Your task to perform on an android device: See recent photos Image 0: 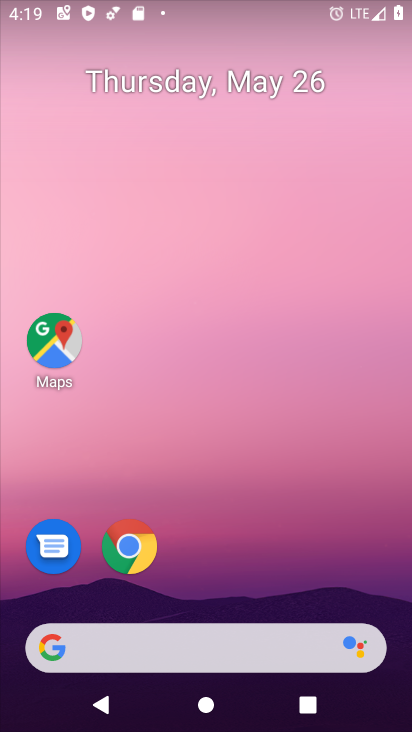
Step 0: click (362, 46)
Your task to perform on an android device: See recent photos Image 1: 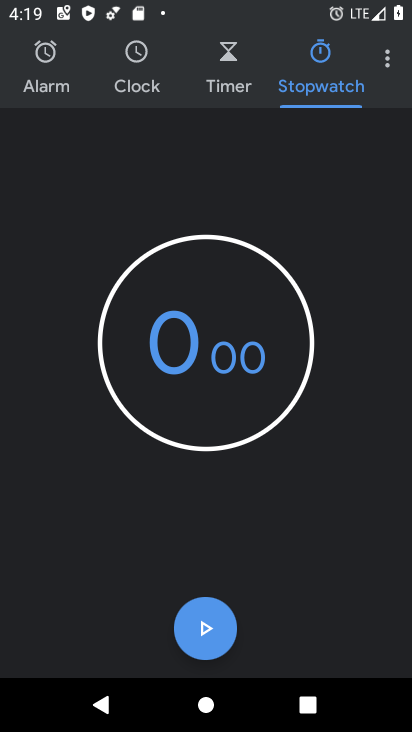
Step 1: press home button
Your task to perform on an android device: See recent photos Image 2: 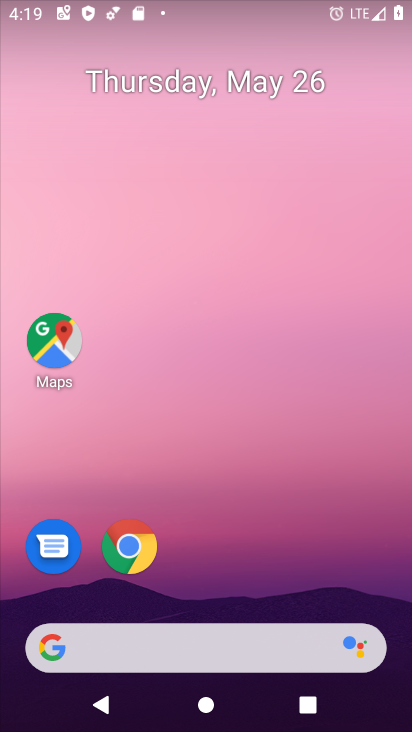
Step 2: drag from (202, 589) to (269, 69)
Your task to perform on an android device: See recent photos Image 3: 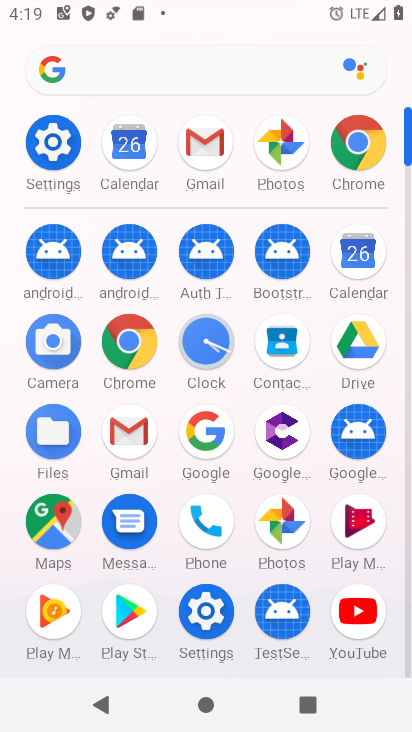
Step 3: click (286, 530)
Your task to perform on an android device: See recent photos Image 4: 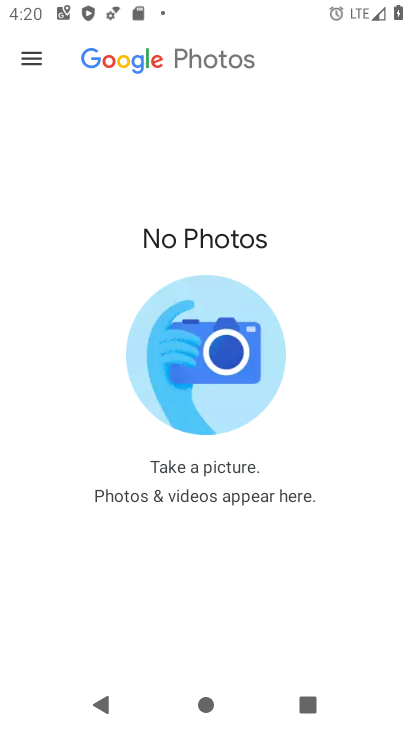
Step 4: click (27, 54)
Your task to perform on an android device: See recent photos Image 5: 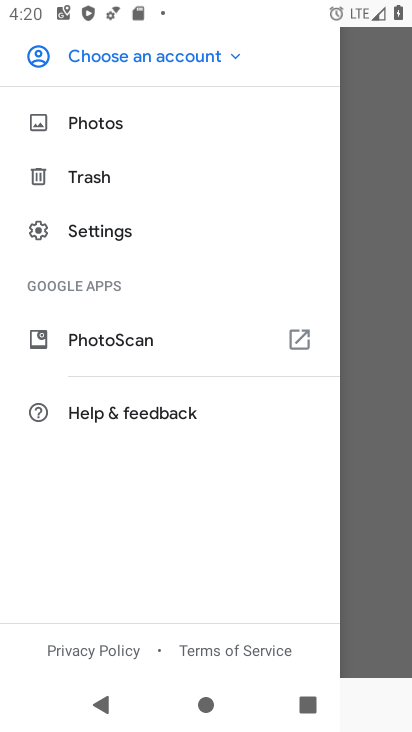
Step 5: click (99, 121)
Your task to perform on an android device: See recent photos Image 6: 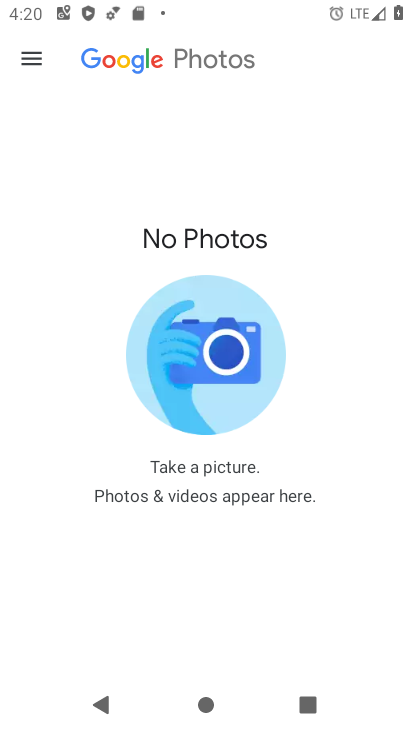
Step 6: click (27, 64)
Your task to perform on an android device: See recent photos Image 7: 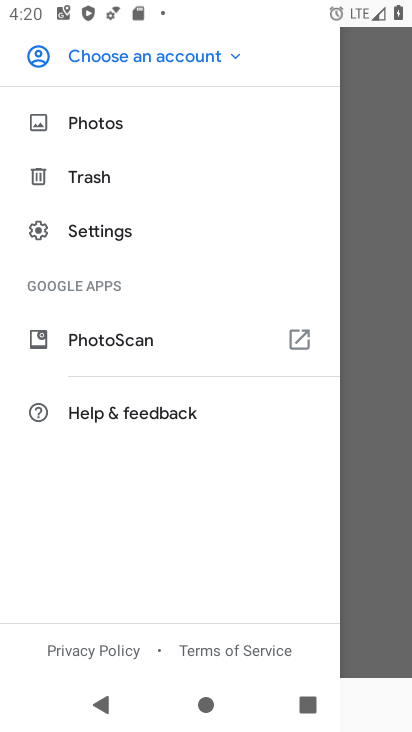
Step 7: click (78, 118)
Your task to perform on an android device: See recent photos Image 8: 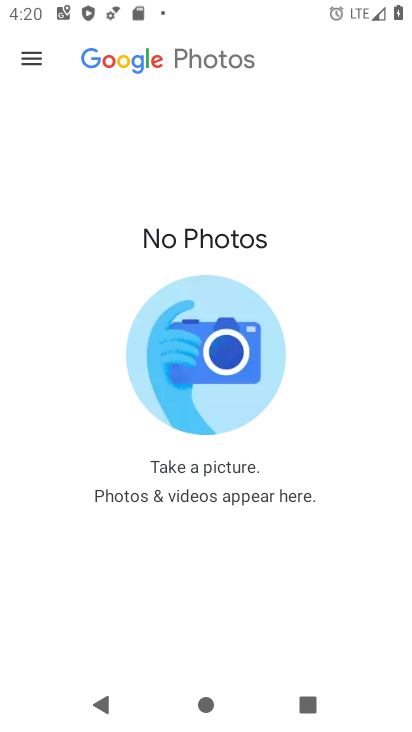
Step 8: task complete